Your task to perform on an android device: visit the assistant section in the google photos Image 0: 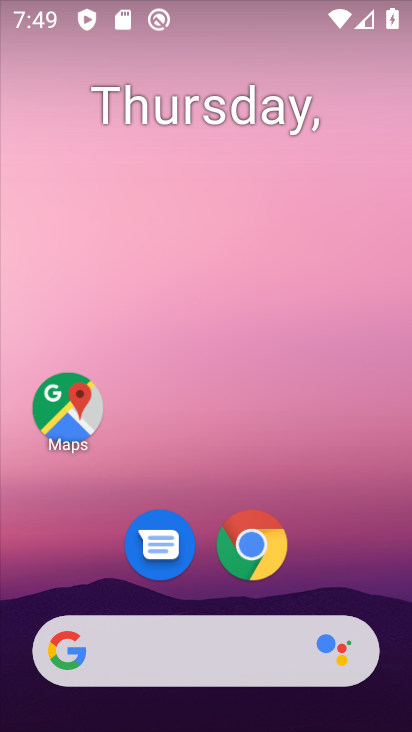
Step 0: drag from (359, 568) to (205, 163)
Your task to perform on an android device: visit the assistant section in the google photos Image 1: 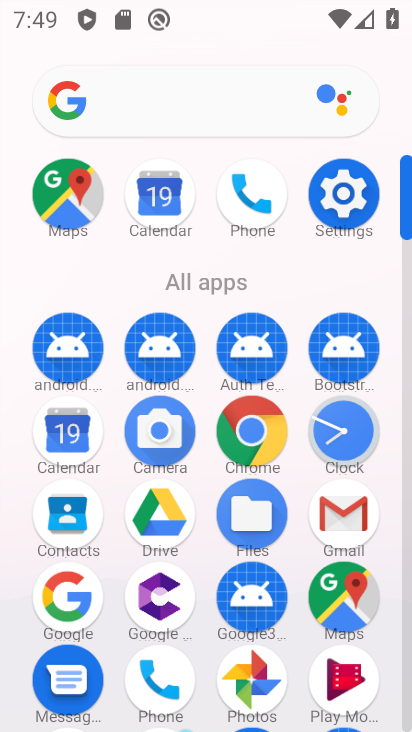
Step 1: drag from (303, 473) to (285, 279)
Your task to perform on an android device: visit the assistant section in the google photos Image 2: 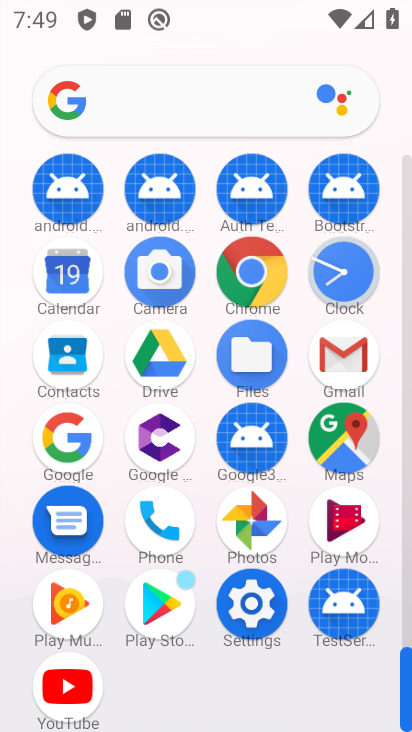
Step 2: click (251, 518)
Your task to perform on an android device: visit the assistant section in the google photos Image 3: 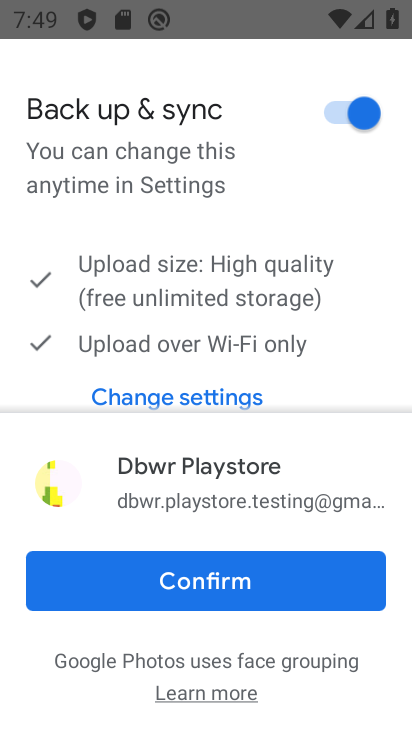
Step 3: click (251, 573)
Your task to perform on an android device: visit the assistant section in the google photos Image 4: 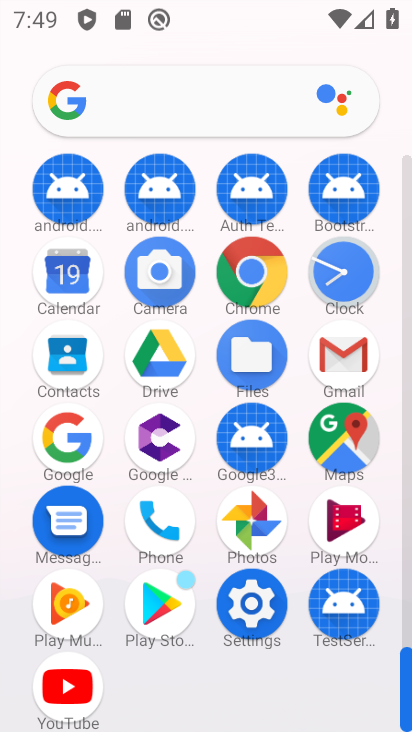
Step 4: click (254, 518)
Your task to perform on an android device: visit the assistant section in the google photos Image 5: 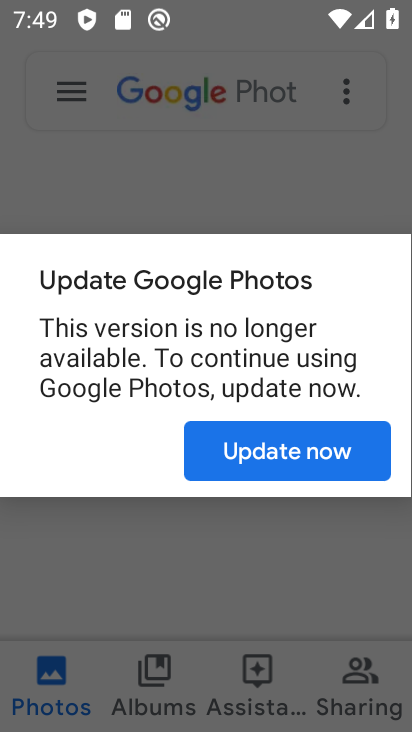
Step 5: click (249, 604)
Your task to perform on an android device: visit the assistant section in the google photos Image 6: 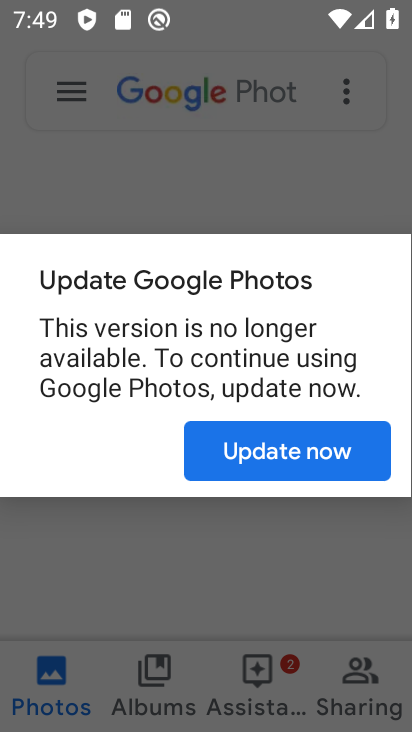
Step 6: click (263, 456)
Your task to perform on an android device: visit the assistant section in the google photos Image 7: 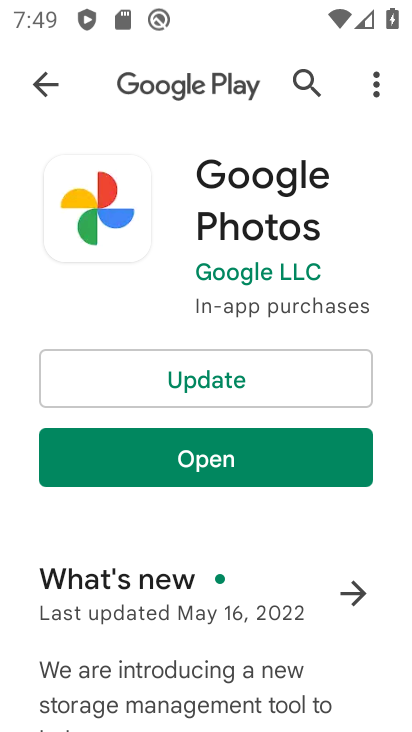
Step 7: click (233, 384)
Your task to perform on an android device: visit the assistant section in the google photos Image 8: 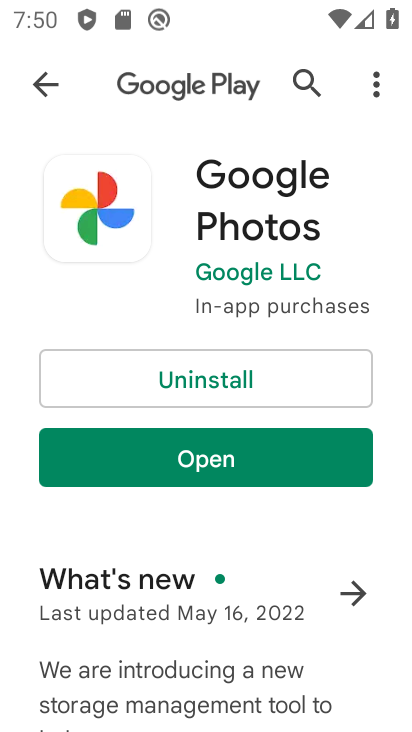
Step 8: click (213, 460)
Your task to perform on an android device: visit the assistant section in the google photos Image 9: 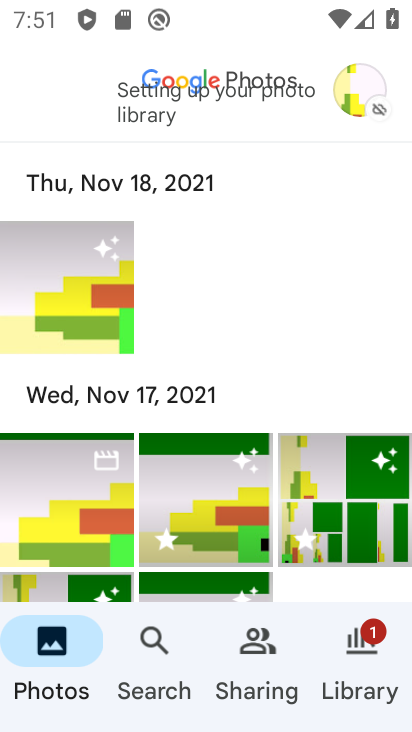
Step 9: click (357, 98)
Your task to perform on an android device: visit the assistant section in the google photos Image 10: 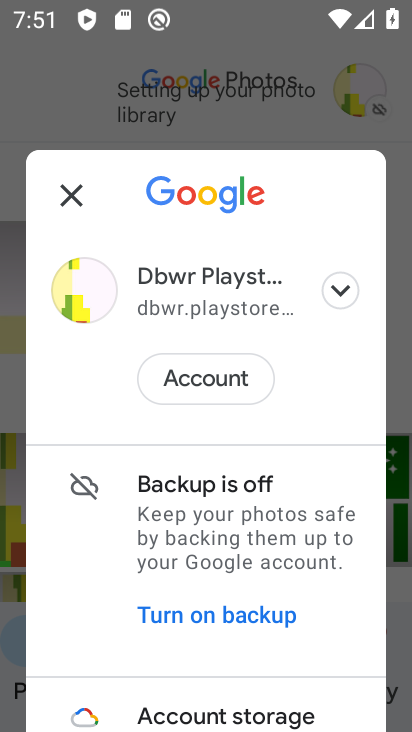
Step 10: drag from (196, 632) to (310, 408)
Your task to perform on an android device: visit the assistant section in the google photos Image 11: 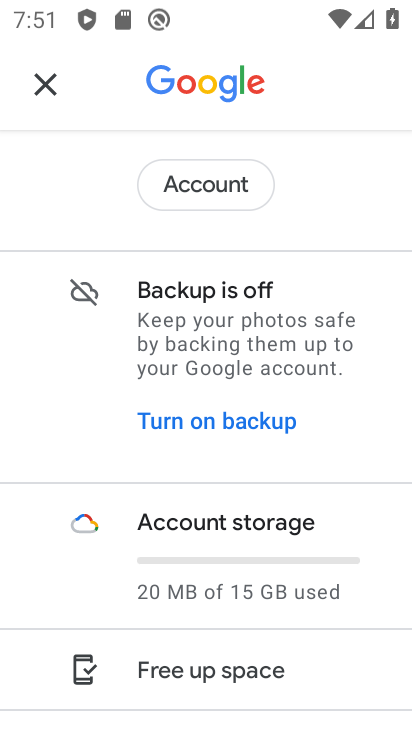
Step 11: drag from (216, 623) to (311, 411)
Your task to perform on an android device: visit the assistant section in the google photos Image 12: 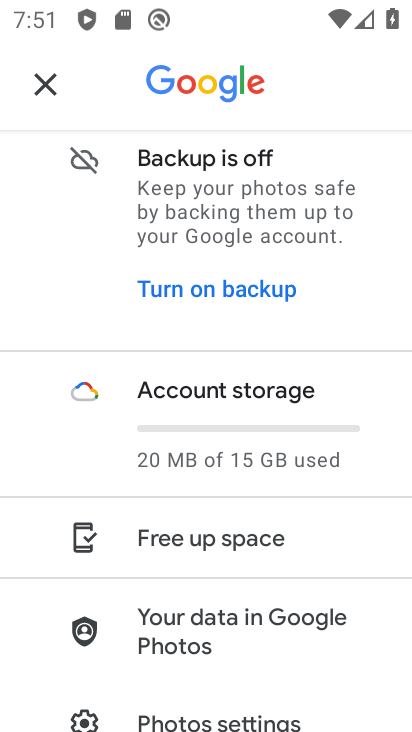
Step 12: drag from (211, 629) to (280, 438)
Your task to perform on an android device: visit the assistant section in the google photos Image 13: 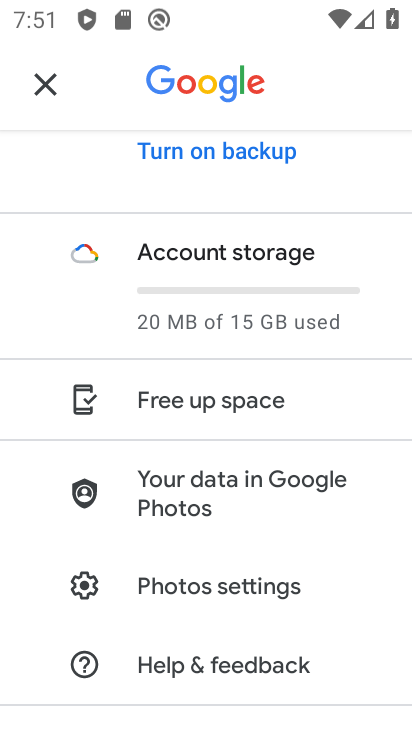
Step 13: click (204, 594)
Your task to perform on an android device: visit the assistant section in the google photos Image 14: 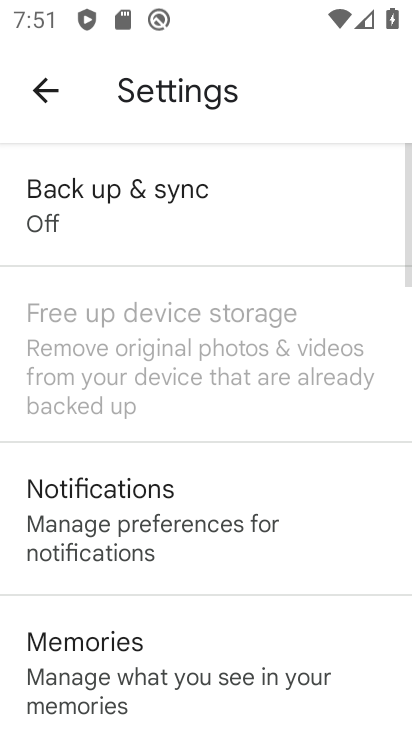
Step 14: drag from (169, 576) to (231, 457)
Your task to perform on an android device: visit the assistant section in the google photos Image 15: 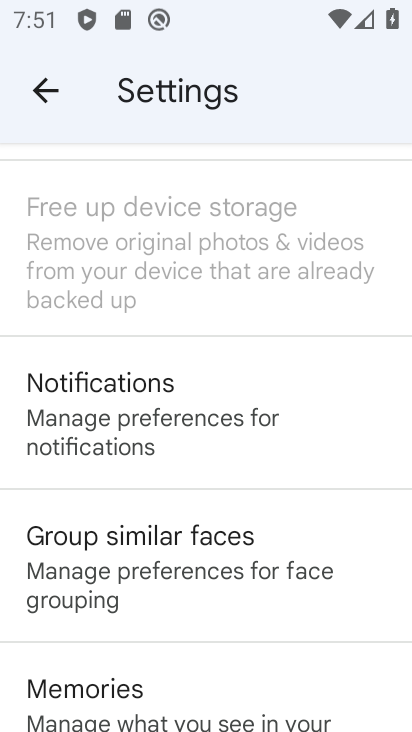
Step 15: drag from (170, 635) to (255, 505)
Your task to perform on an android device: visit the assistant section in the google photos Image 16: 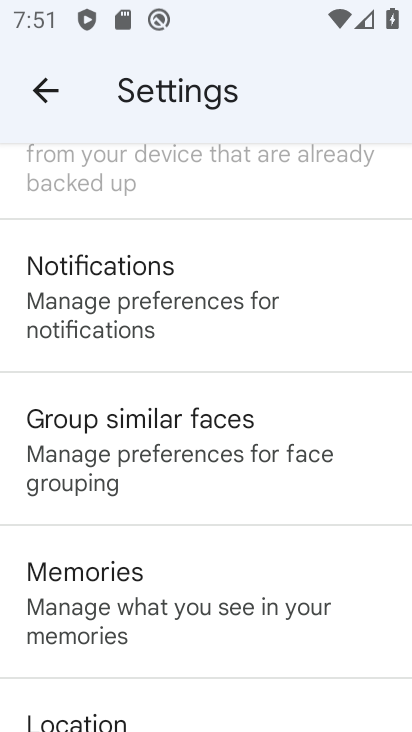
Step 16: click (136, 302)
Your task to perform on an android device: visit the assistant section in the google photos Image 17: 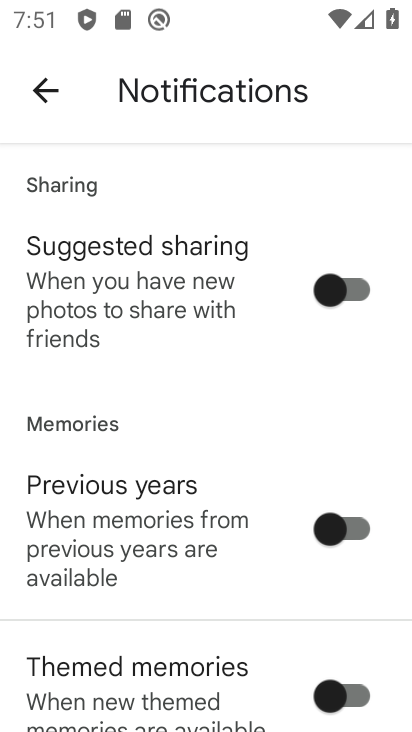
Step 17: drag from (163, 591) to (212, 383)
Your task to perform on an android device: visit the assistant section in the google photos Image 18: 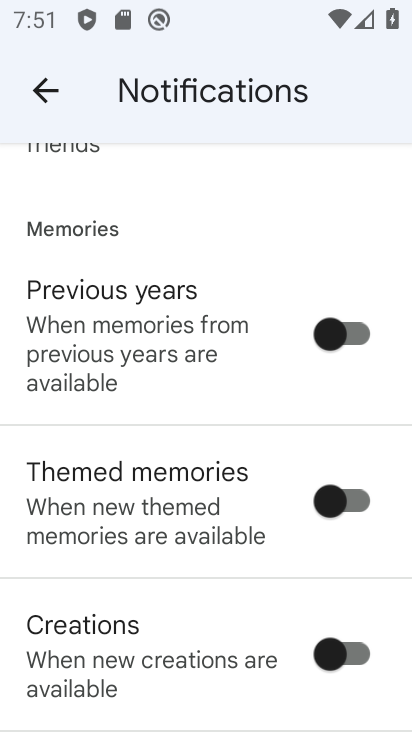
Step 18: drag from (188, 436) to (246, 260)
Your task to perform on an android device: visit the assistant section in the google photos Image 19: 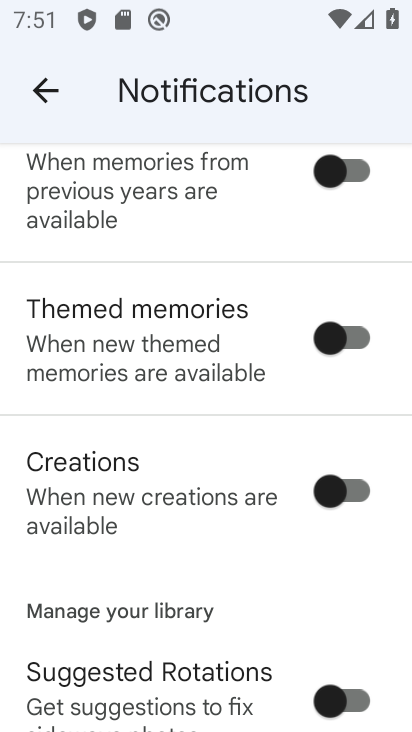
Step 19: drag from (247, 462) to (234, 226)
Your task to perform on an android device: visit the assistant section in the google photos Image 20: 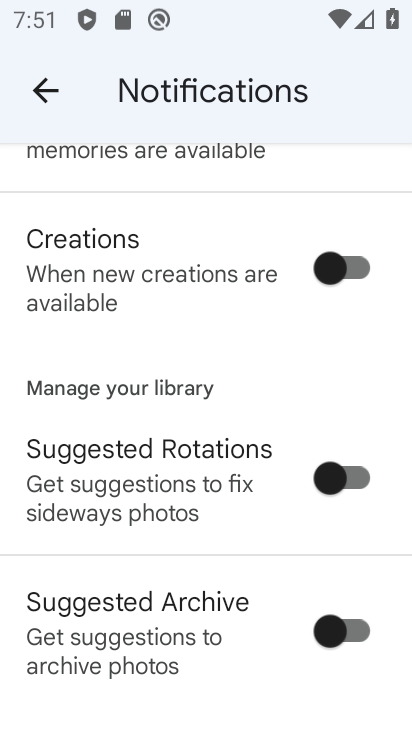
Step 20: drag from (203, 586) to (213, 371)
Your task to perform on an android device: visit the assistant section in the google photos Image 21: 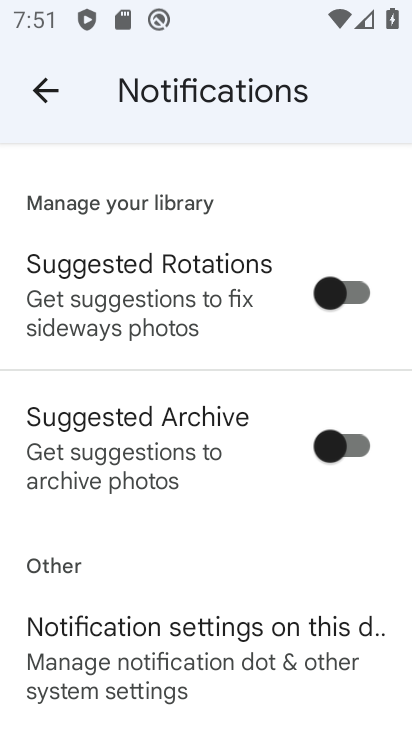
Step 21: drag from (158, 547) to (188, 450)
Your task to perform on an android device: visit the assistant section in the google photos Image 22: 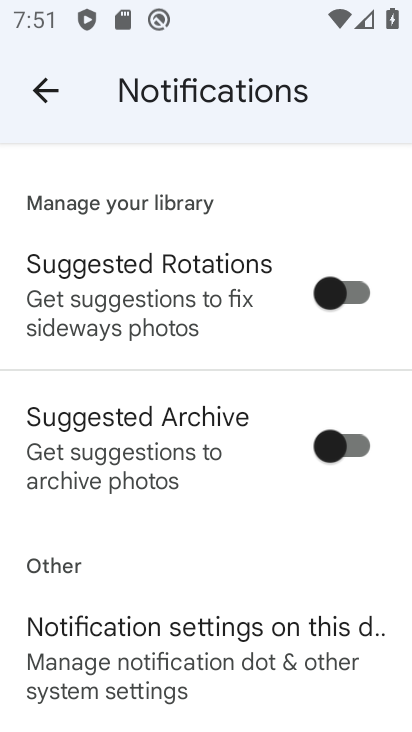
Step 22: click (211, 608)
Your task to perform on an android device: visit the assistant section in the google photos Image 23: 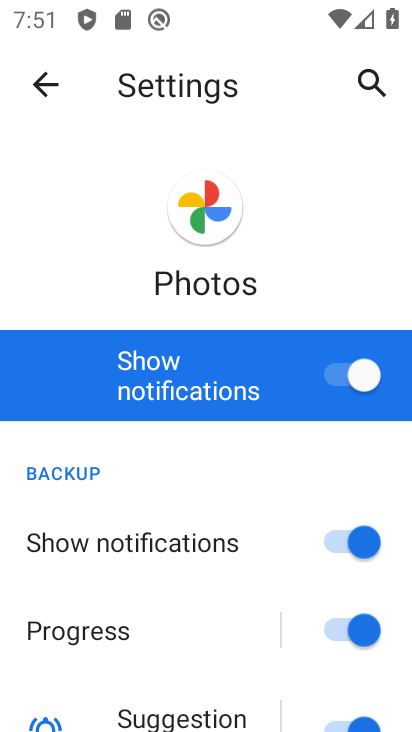
Step 23: task complete